Your task to perform on an android device: empty trash in the gmail app Image 0: 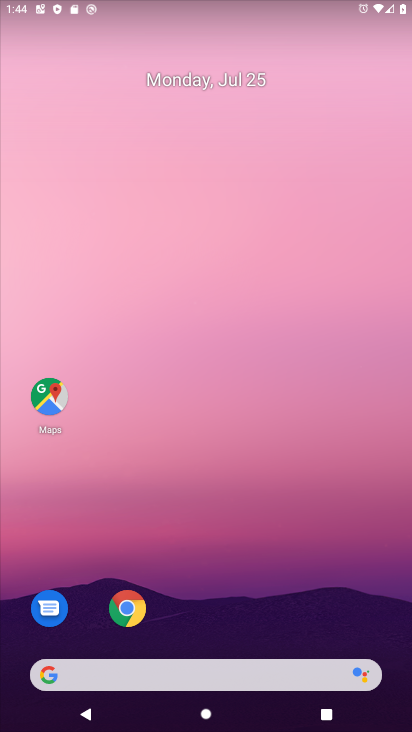
Step 0: drag from (321, 604) to (256, 50)
Your task to perform on an android device: empty trash in the gmail app Image 1: 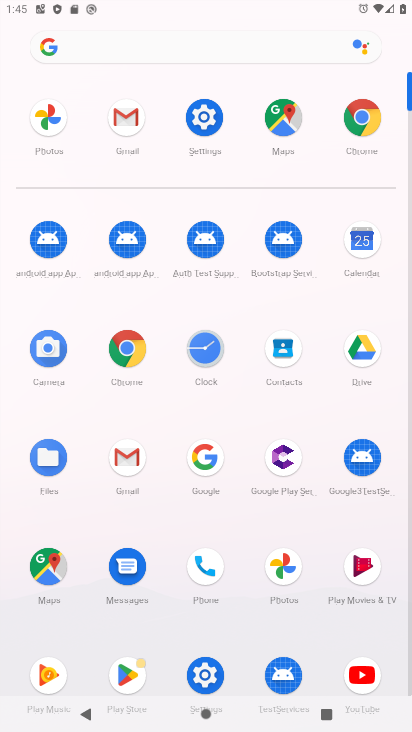
Step 1: click (129, 456)
Your task to perform on an android device: empty trash in the gmail app Image 2: 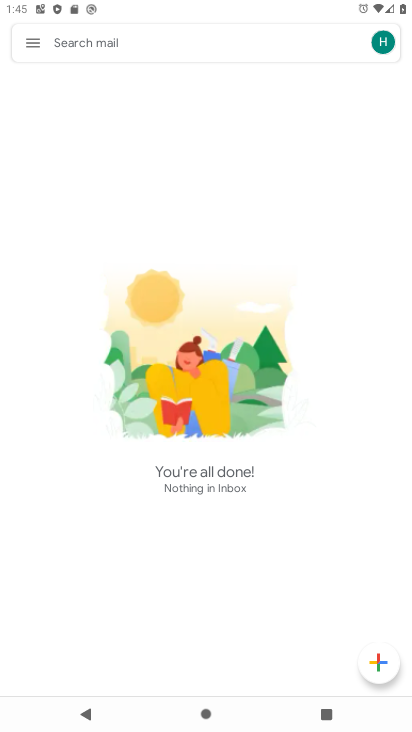
Step 2: click (34, 45)
Your task to perform on an android device: empty trash in the gmail app Image 3: 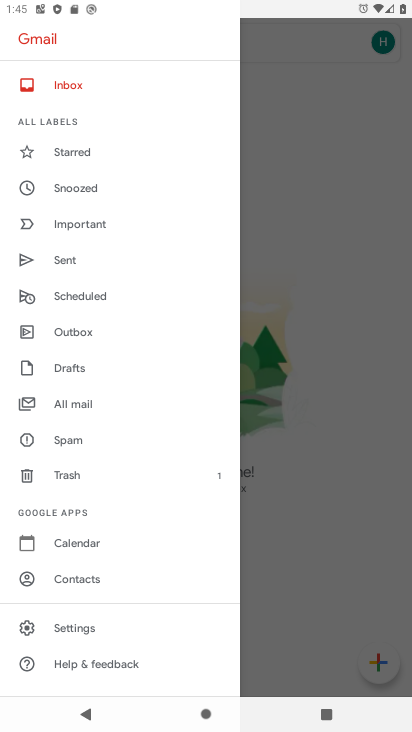
Step 3: click (65, 474)
Your task to perform on an android device: empty trash in the gmail app Image 4: 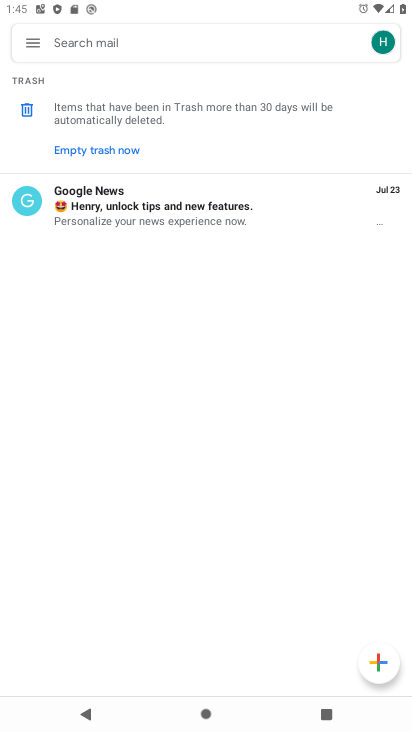
Step 4: click (37, 36)
Your task to perform on an android device: empty trash in the gmail app Image 5: 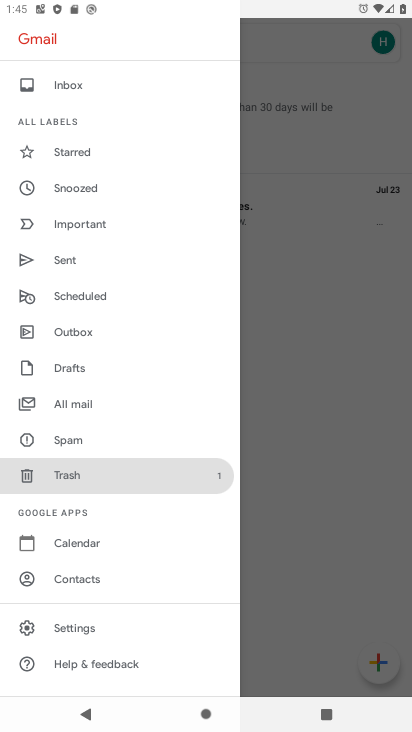
Step 5: click (349, 337)
Your task to perform on an android device: empty trash in the gmail app Image 6: 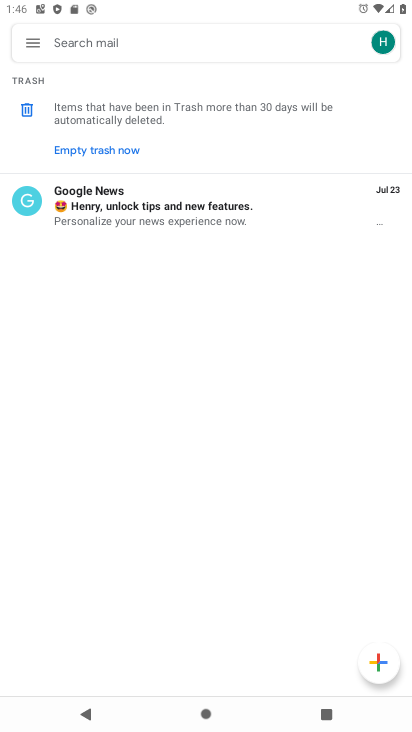
Step 6: click (95, 152)
Your task to perform on an android device: empty trash in the gmail app Image 7: 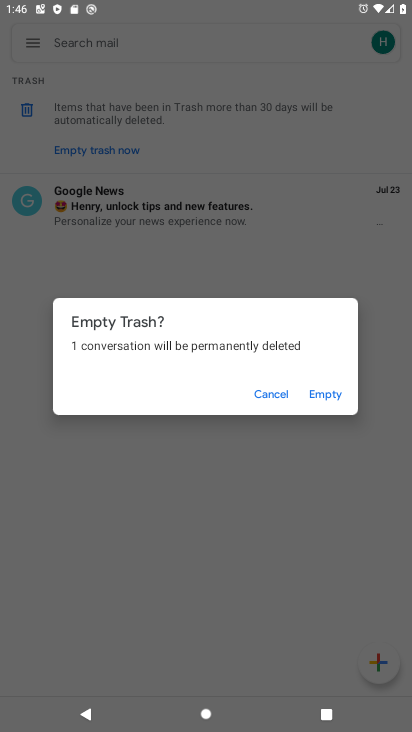
Step 7: click (309, 391)
Your task to perform on an android device: empty trash in the gmail app Image 8: 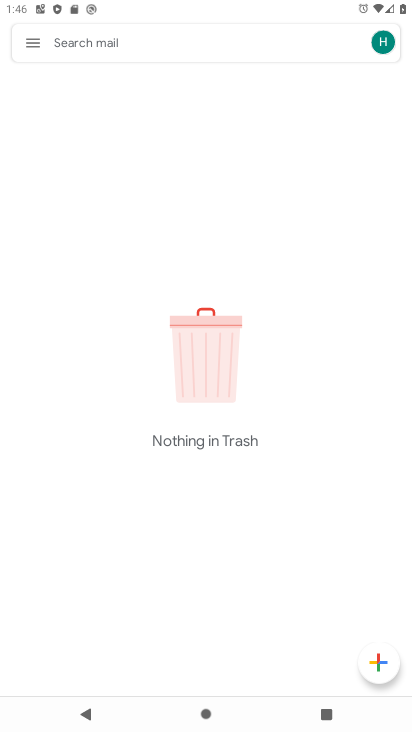
Step 8: task complete